Your task to perform on an android device: uninstall "ZOOM Cloud Meetings" Image 0: 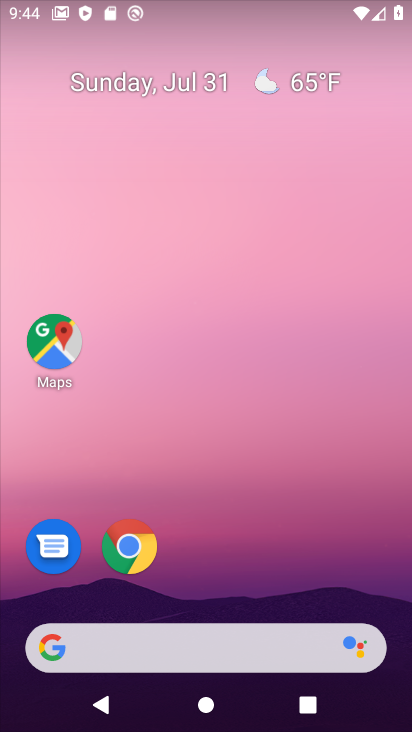
Step 0: drag from (224, 577) to (260, 40)
Your task to perform on an android device: uninstall "ZOOM Cloud Meetings" Image 1: 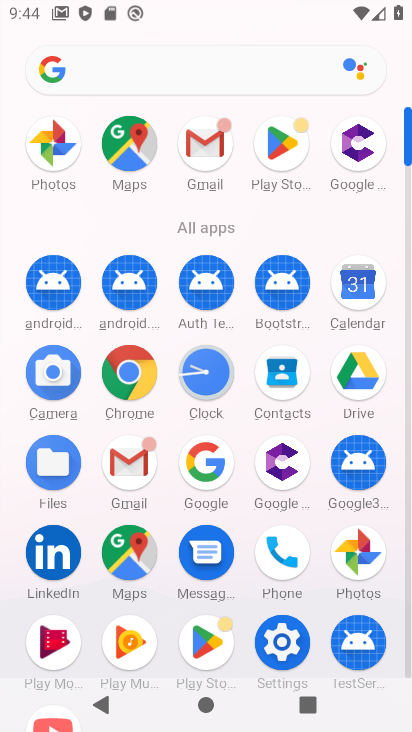
Step 1: click (280, 137)
Your task to perform on an android device: uninstall "ZOOM Cloud Meetings" Image 2: 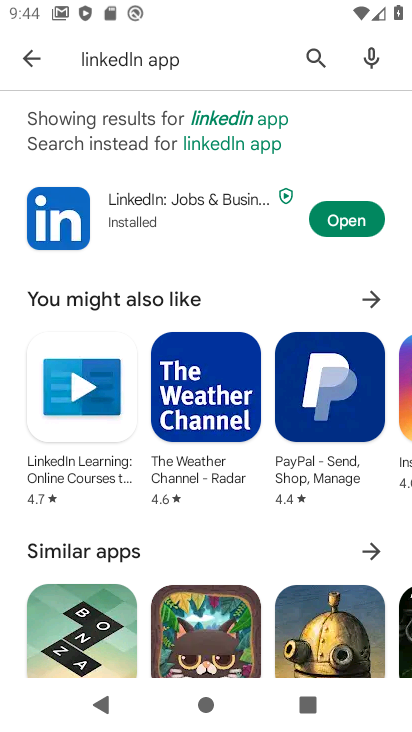
Step 2: click (320, 37)
Your task to perform on an android device: uninstall "ZOOM Cloud Meetings" Image 3: 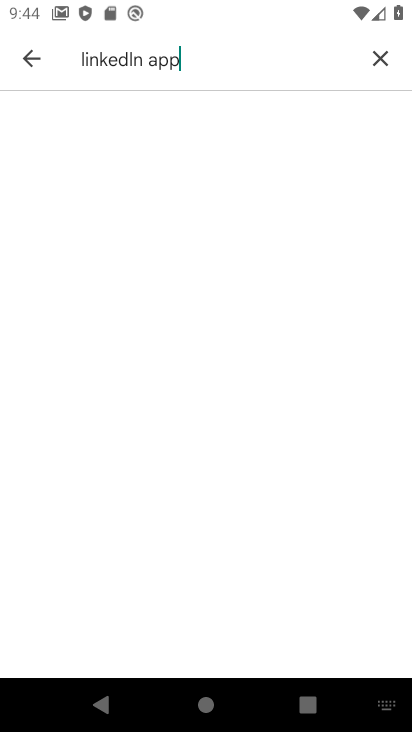
Step 3: click (376, 59)
Your task to perform on an android device: uninstall "ZOOM Cloud Meetings" Image 4: 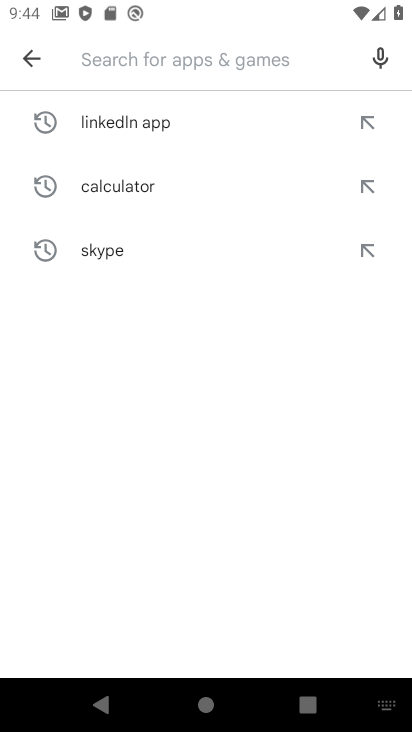
Step 4: click (171, 61)
Your task to perform on an android device: uninstall "ZOOM Cloud Meetings" Image 5: 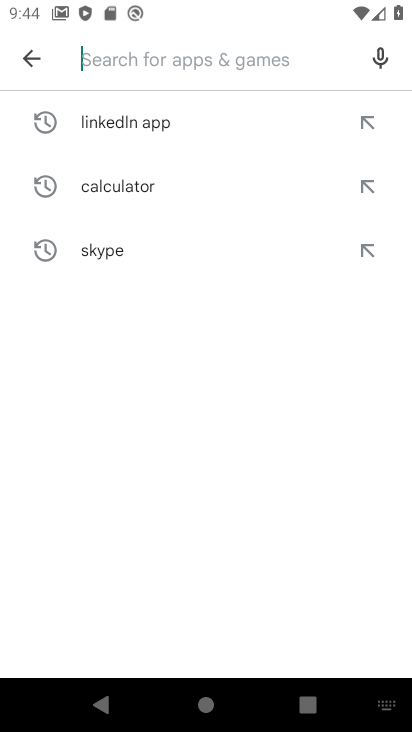
Step 5: type "zoom "
Your task to perform on an android device: uninstall "ZOOM Cloud Meetings" Image 6: 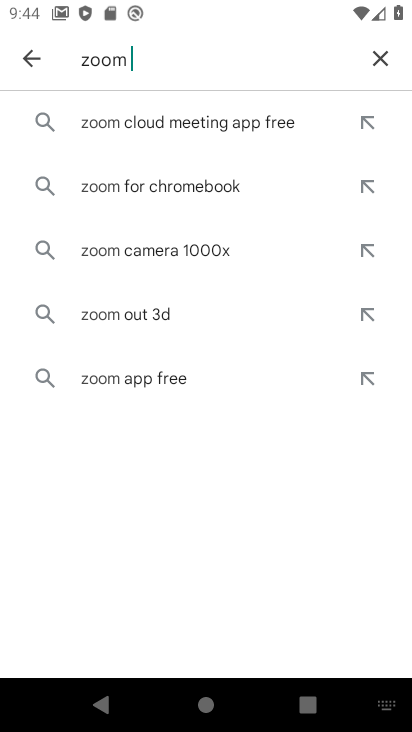
Step 6: click (220, 123)
Your task to perform on an android device: uninstall "ZOOM Cloud Meetings" Image 7: 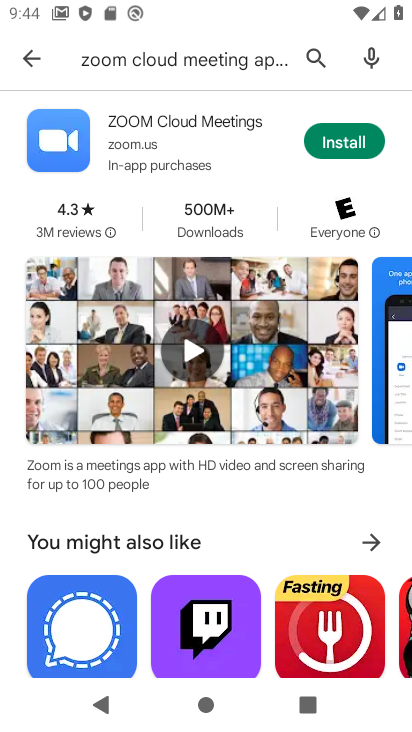
Step 7: task complete